Your task to perform on an android device: open app "Truecaller" (install if not already installed) Image 0: 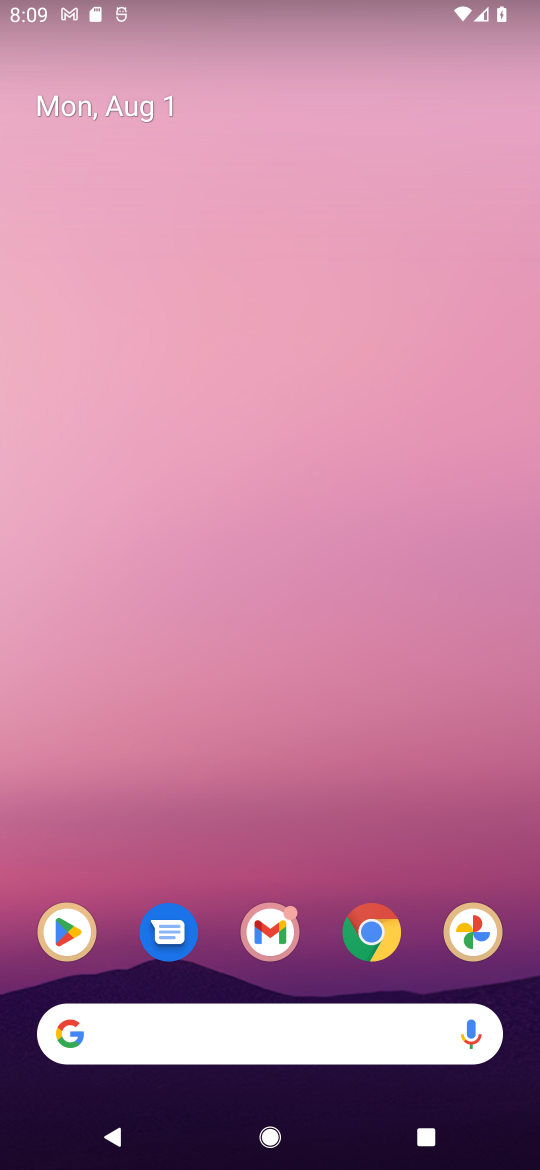
Step 0: click (87, 950)
Your task to perform on an android device: open app "Truecaller" (install if not already installed) Image 1: 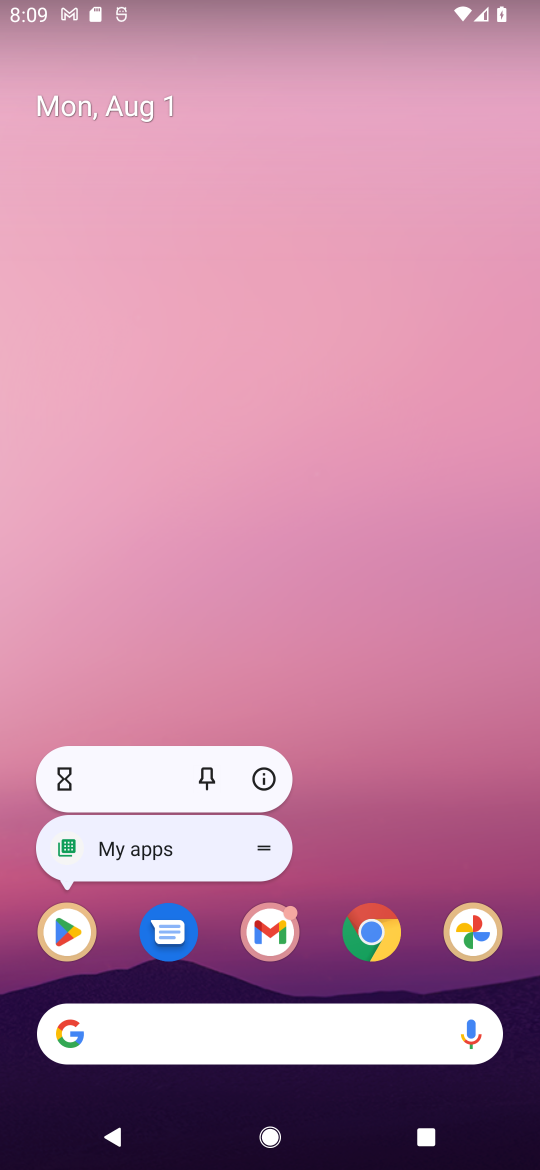
Step 1: click (61, 933)
Your task to perform on an android device: open app "Truecaller" (install if not already installed) Image 2: 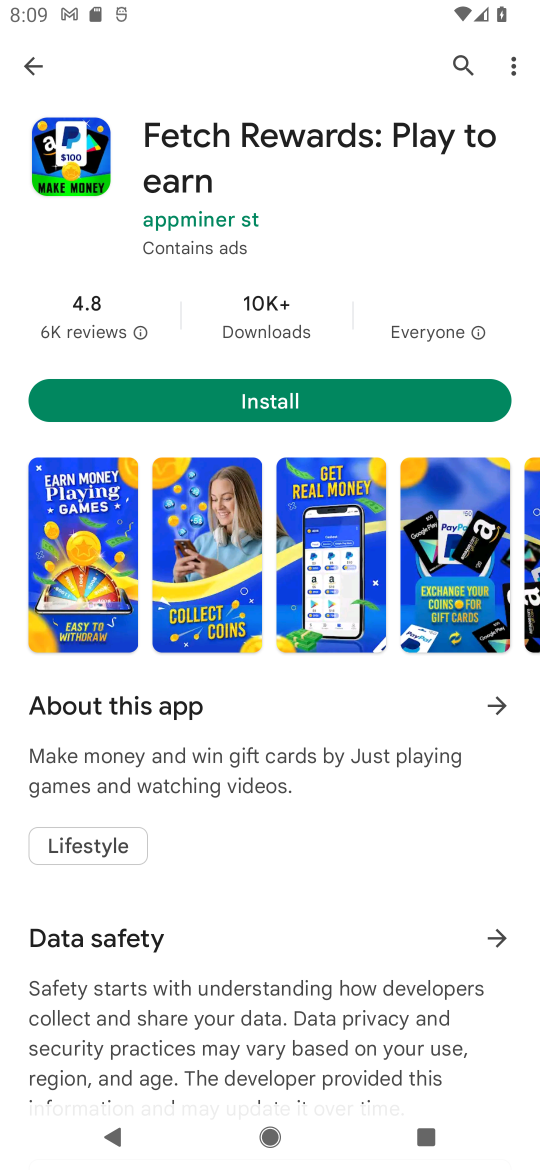
Step 2: click (29, 69)
Your task to perform on an android device: open app "Truecaller" (install if not already installed) Image 3: 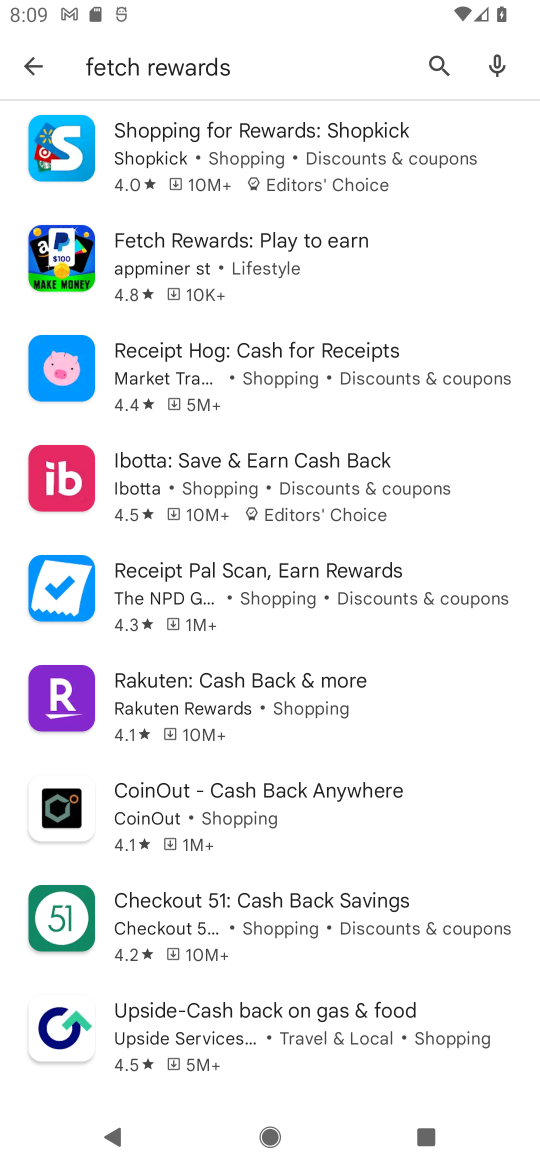
Step 3: click (194, 87)
Your task to perform on an android device: open app "Truecaller" (install if not already installed) Image 4: 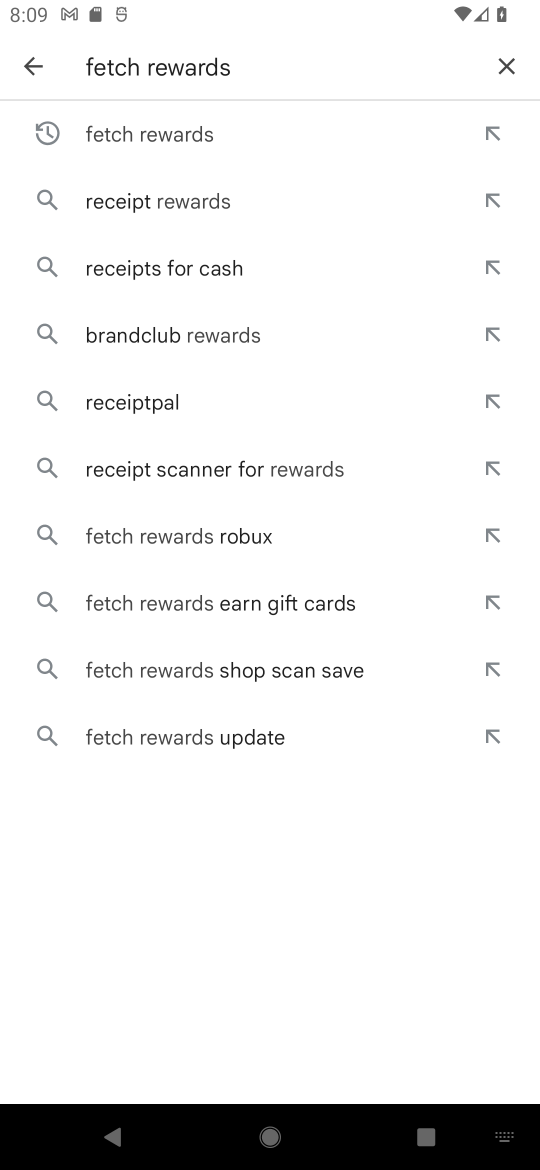
Step 4: click (509, 65)
Your task to perform on an android device: open app "Truecaller" (install if not already installed) Image 5: 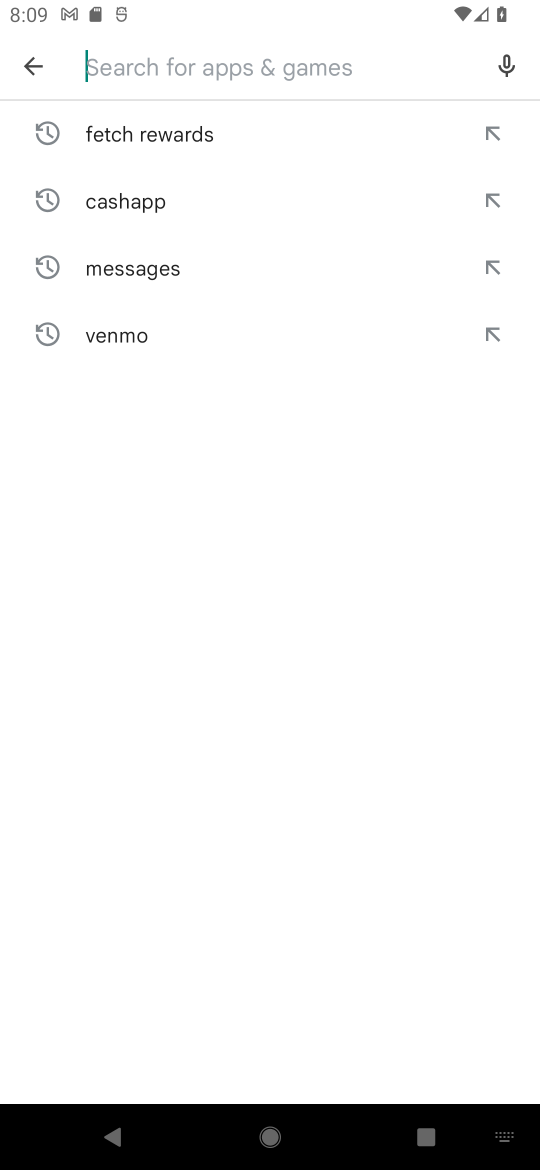
Step 5: type "truecaller"
Your task to perform on an android device: open app "Truecaller" (install if not already installed) Image 6: 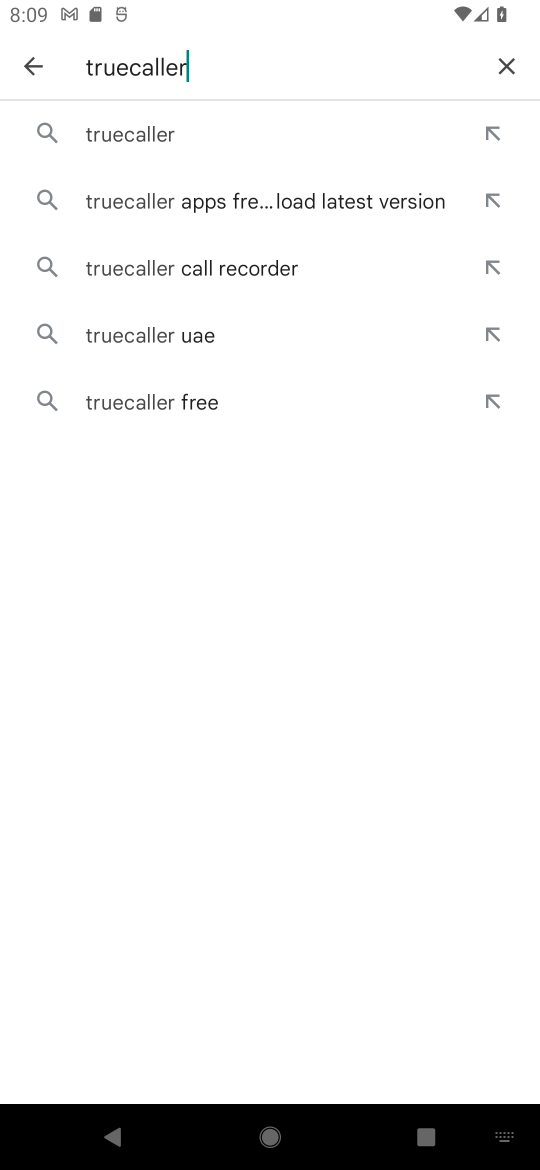
Step 6: click (184, 128)
Your task to perform on an android device: open app "Truecaller" (install if not already installed) Image 7: 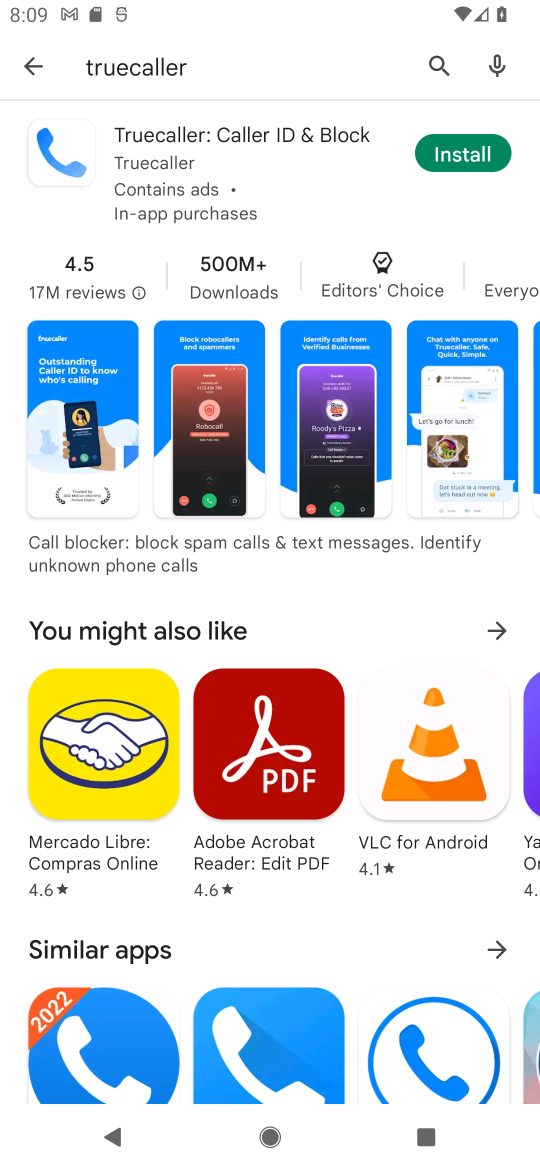
Step 7: click (463, 150)
Your task to perform on an android device: open app "Truecaller" (install if not already installed) Image 8: 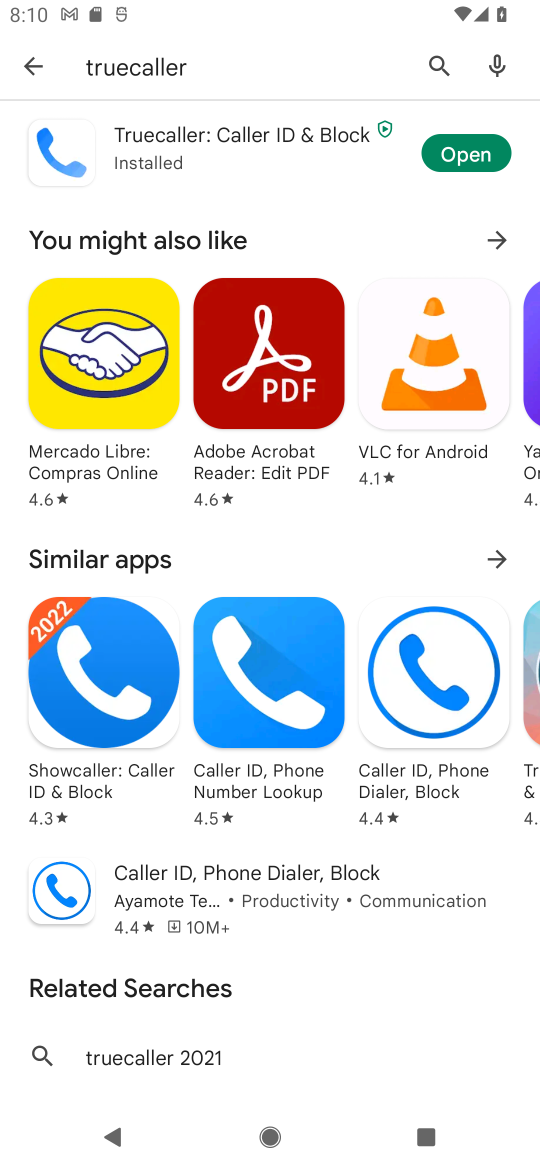
Step 8: click (455, 149)
Your task to perform on an android device: open app "Truecaller" (install if not already installed) Image 9: 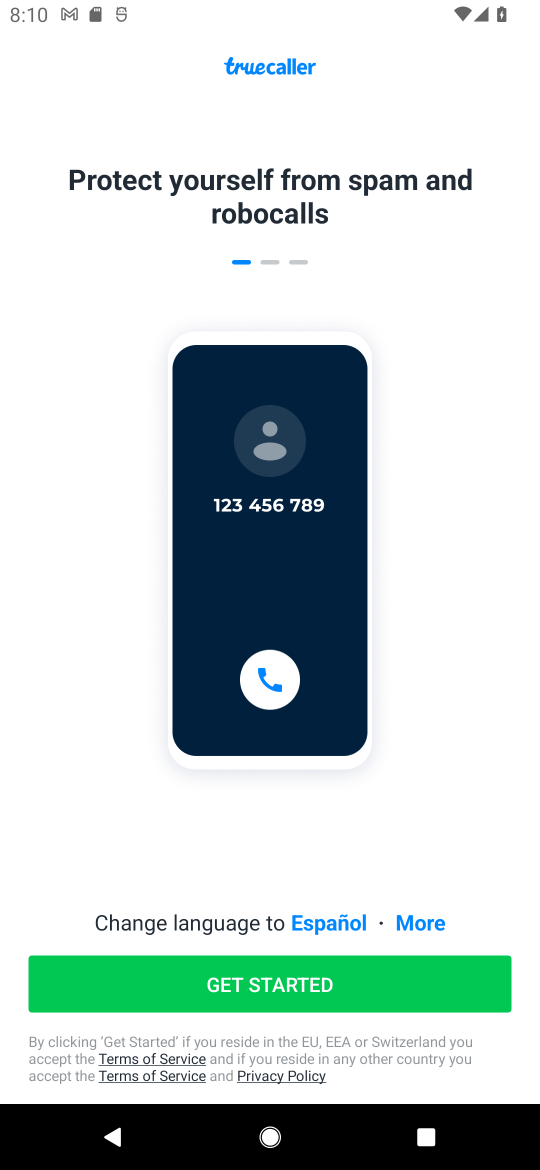
Step 9: click (292, 978)
Your task to perform on an android device: open app "Truecaller" (install if not already installed) Image 10: 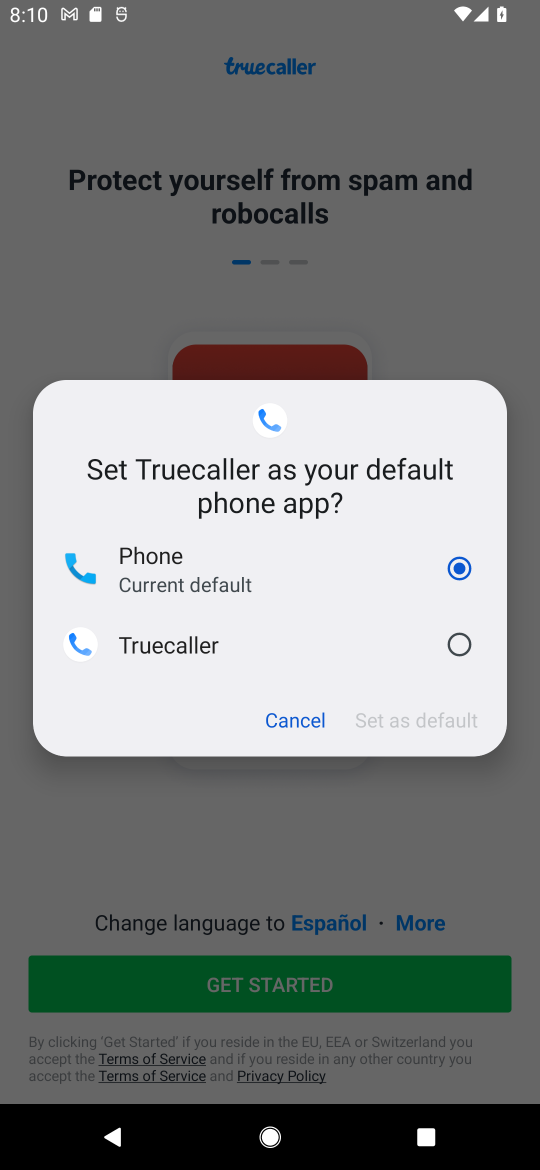
Step 10: click (388, 643)
Your task to perform on an android device: open app "Truecaller" (install if not already installed) Image 11: 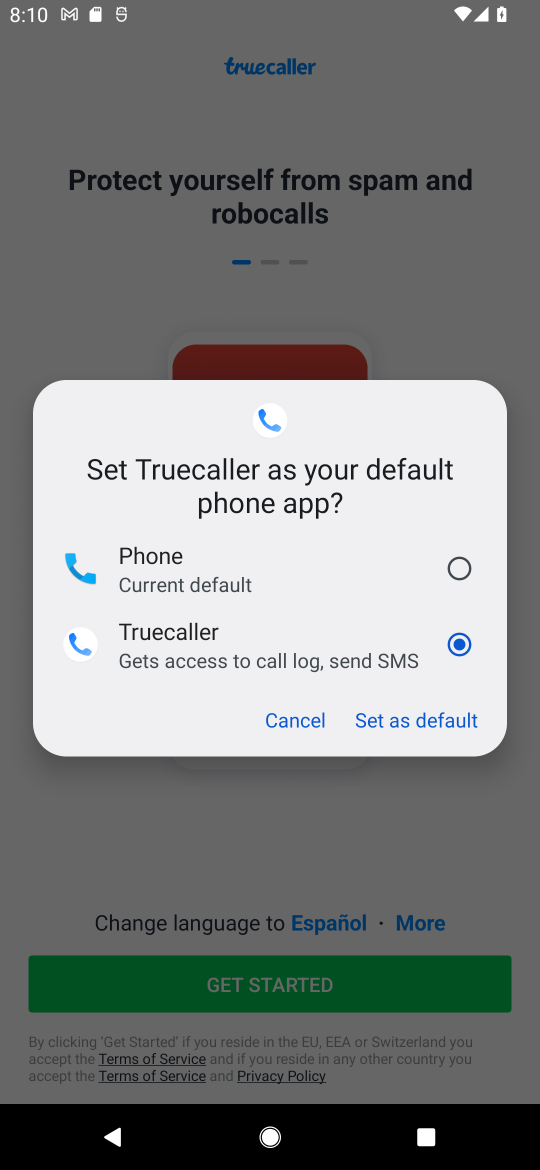
Step 11: click (416, 716)
Your task to perform on an android device: open app "Truecaller" (install if not already installed) Image 12: 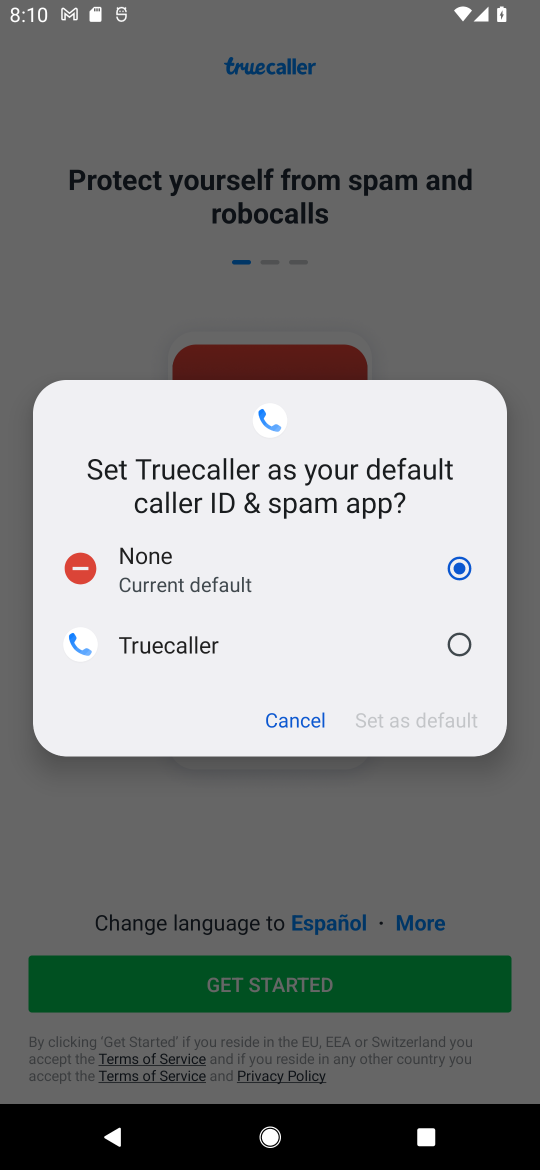
Step 12: click (459, 641)
Your task to perform on an android device: open app "Truecaller" (install if not already installed) Image 13: 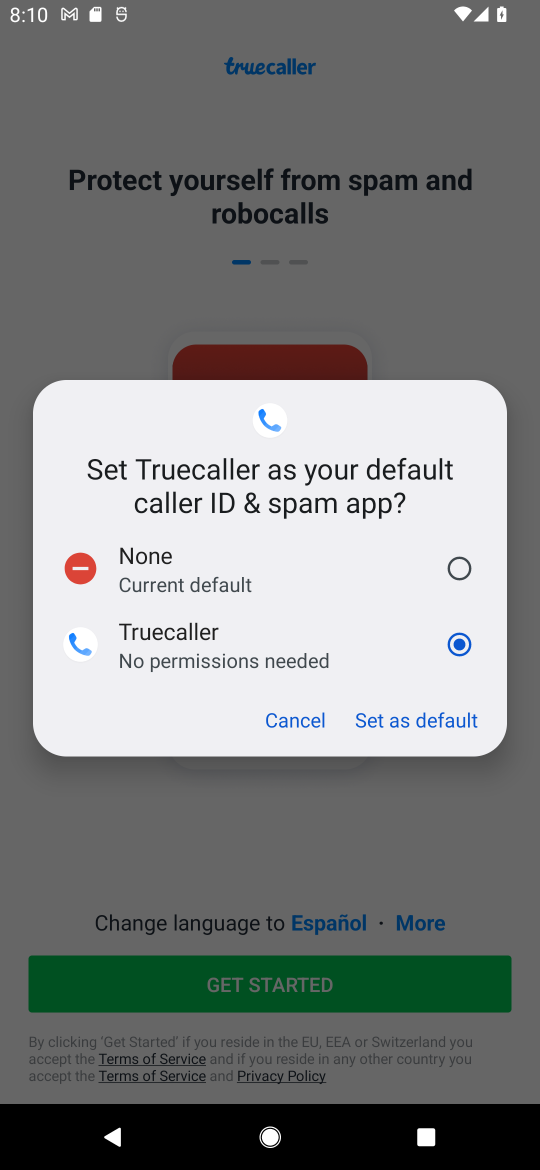
Step 13: click (442, 722)
Your task to perform on an android device: open app "Truecaller" (install if not already installed) Image 14: 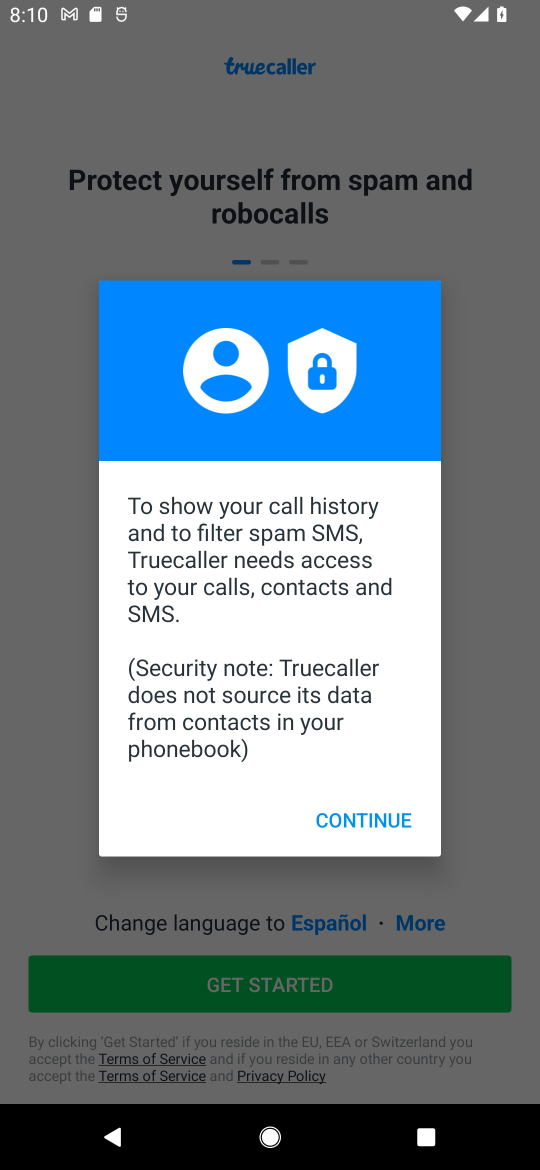
Step 14: task complete